Your task to perform on an android device: What's on my calendar today? Image 0: 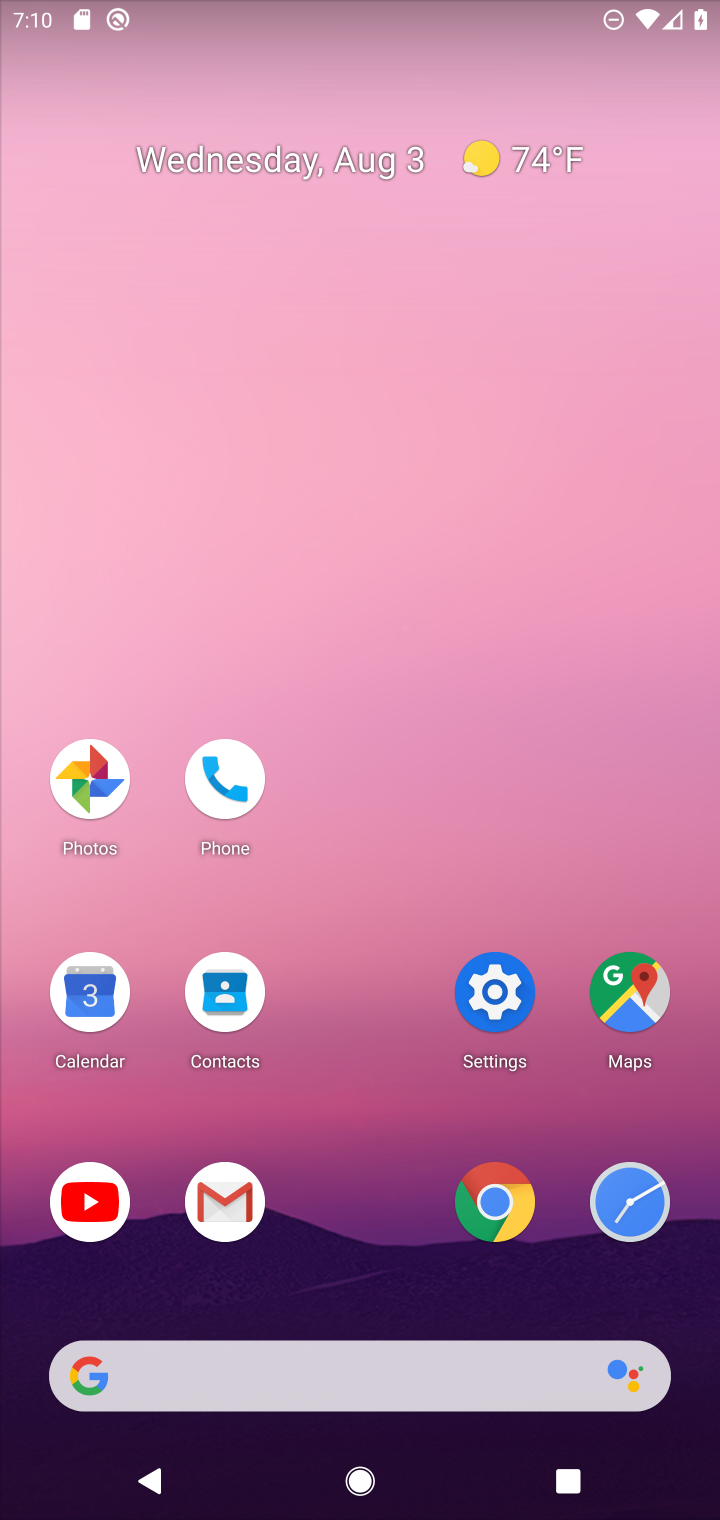
Step 0: click (88, 993)
Your task to perform on an android device: What's on my calendar today? Image 1: 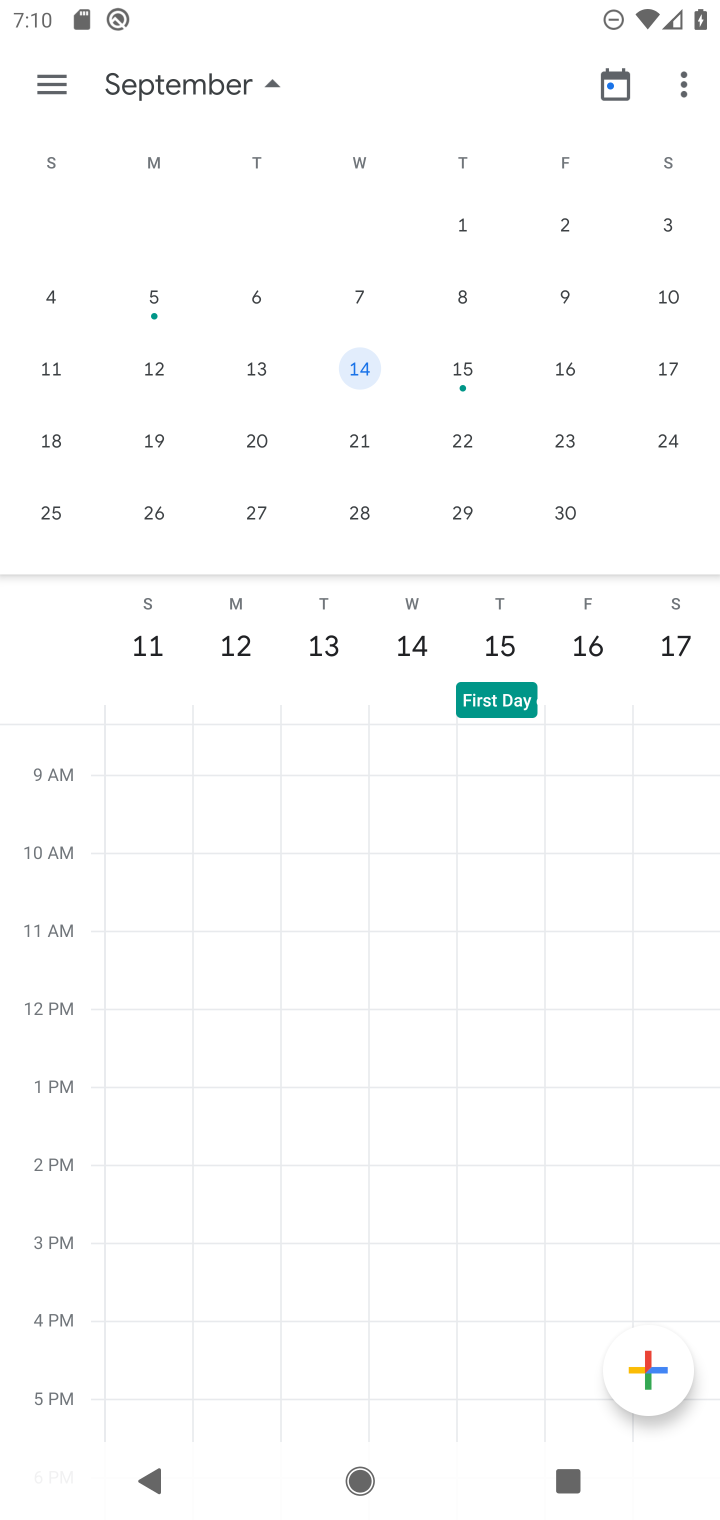
Step 1: drag from (80, 366) to (696, 418)
Your task to perform on an android device: What's on my calendar today? Image 2: 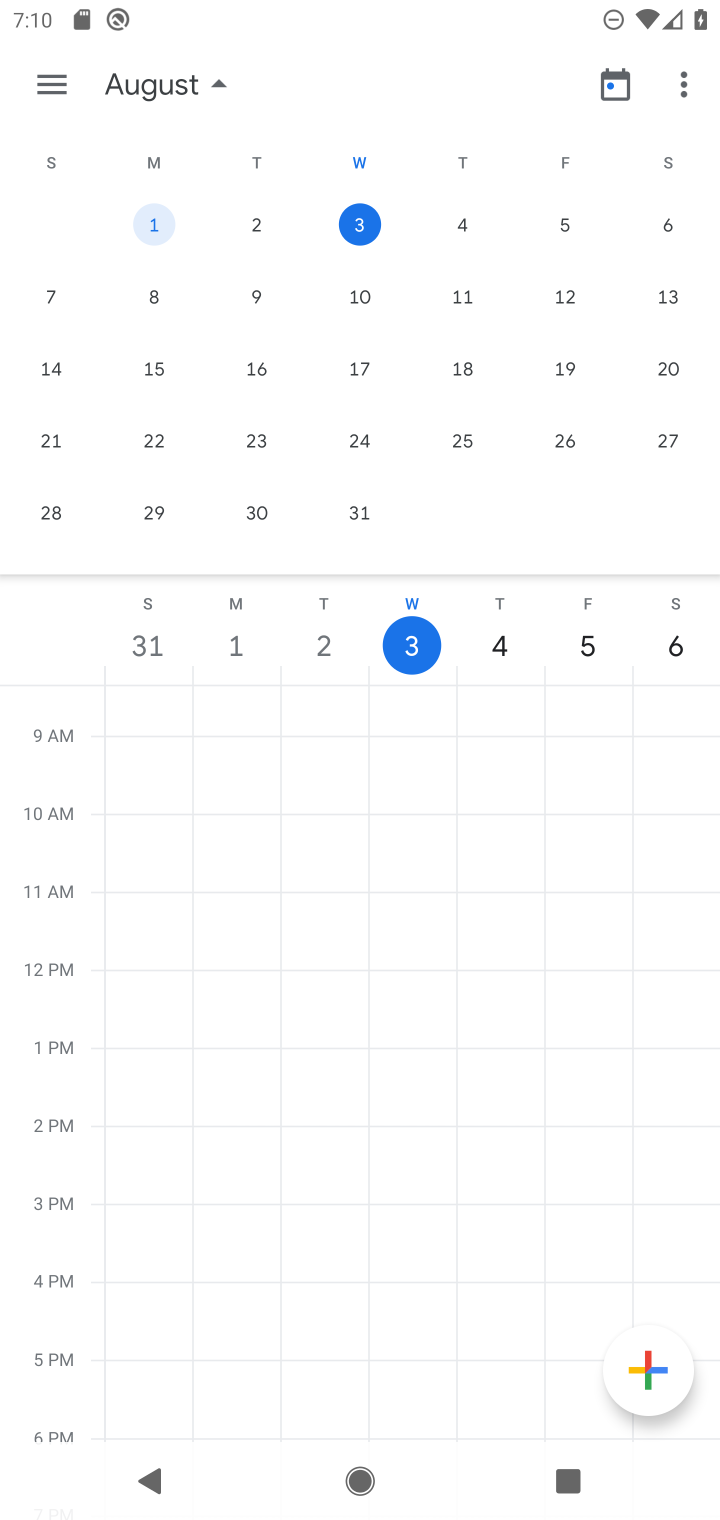
Step 2: click (363, 221)
Your task to perform on an android device: What's on my calendar today? Image 3: 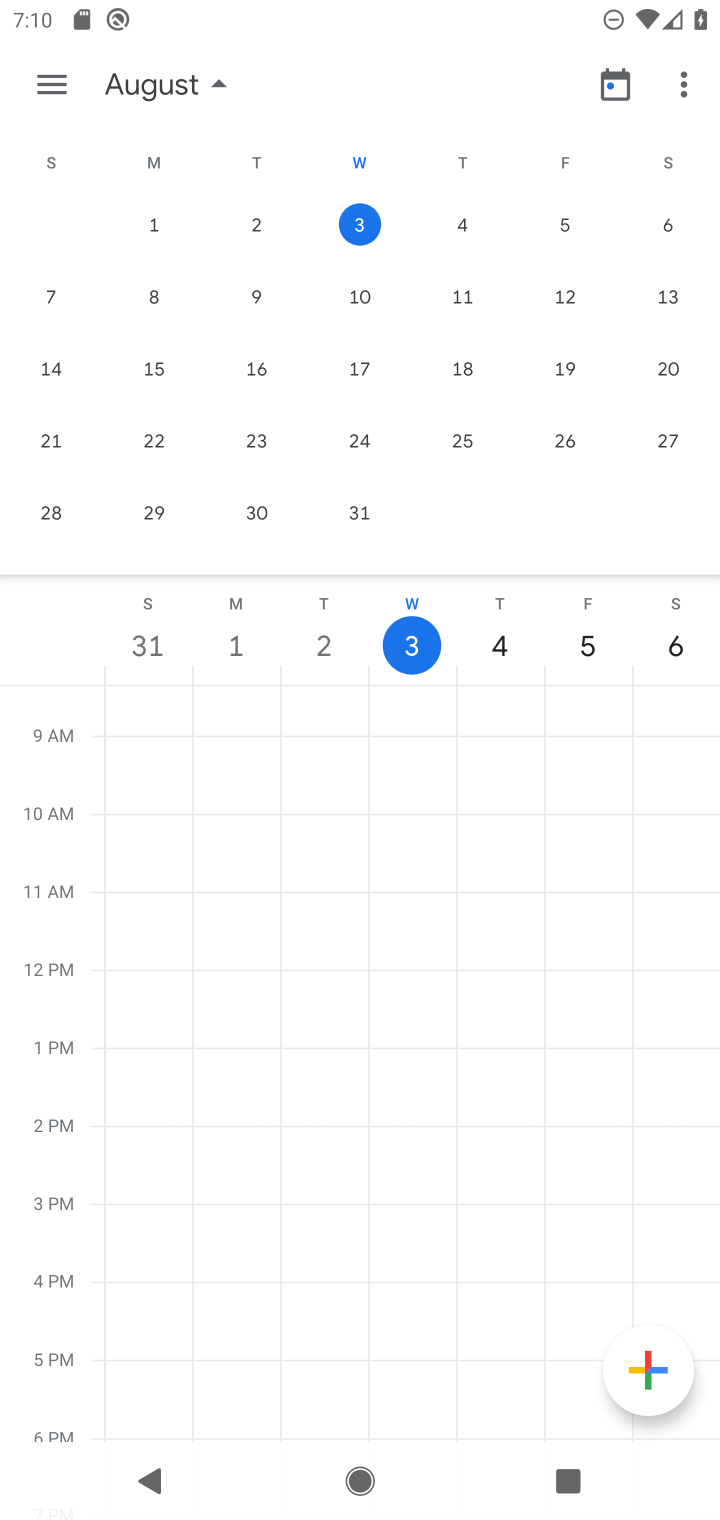
Step 3: click (407, 634)
Your task to perform on an android device: What's on my calendar today? Image 4: 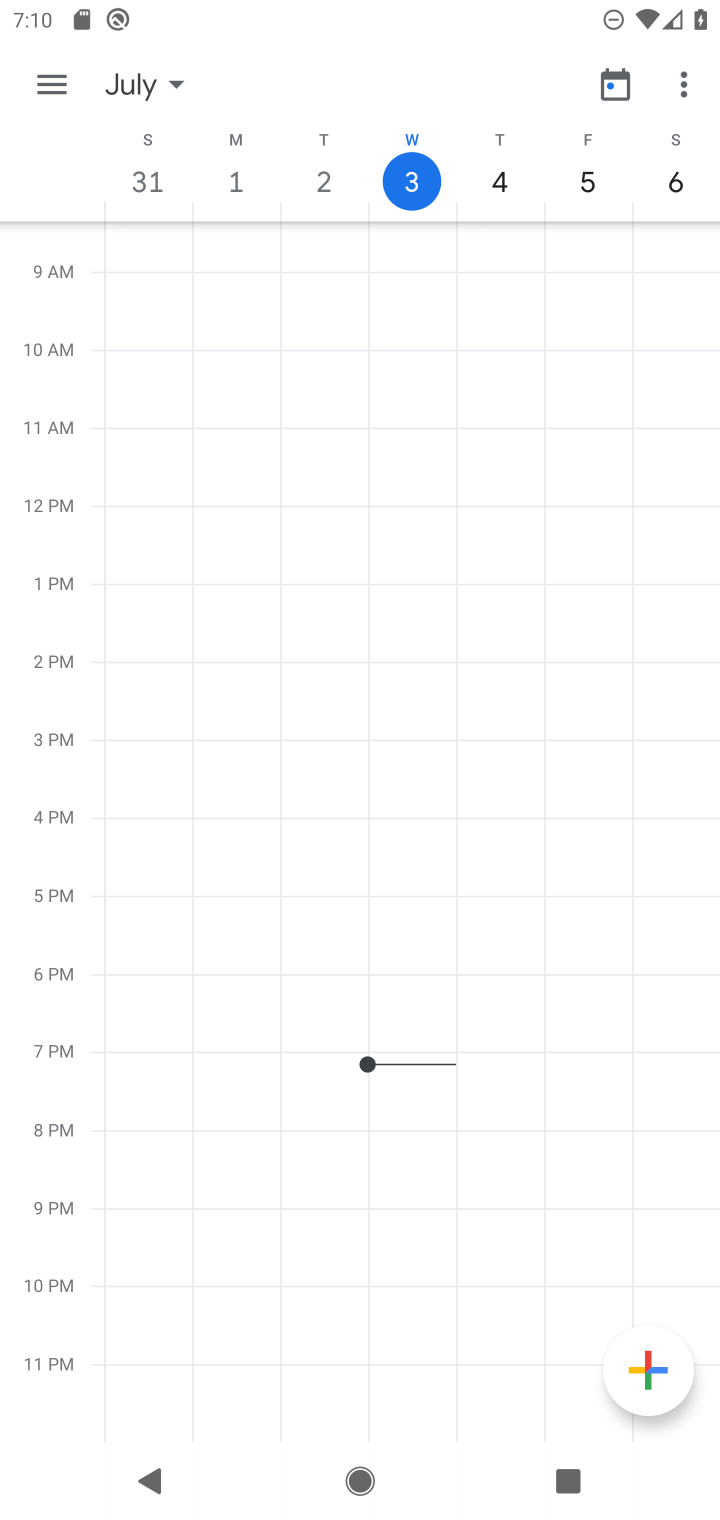
Step 4: click (411, 166)
Your task to perform on an android device: What's on my calendar today? Image 5: 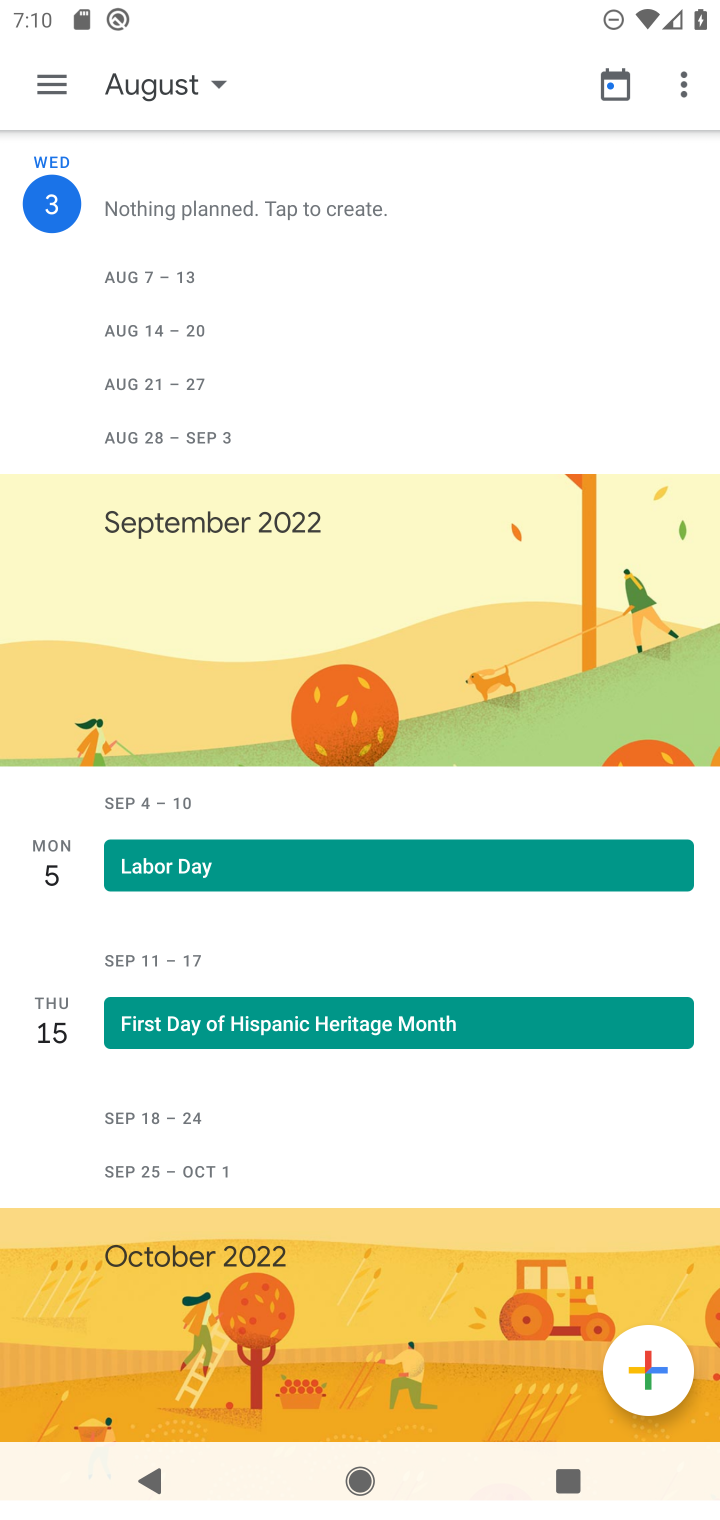
Step 5: click (48, 193)
Your task to perform on an android device: What's on my calendar today? Image 6: 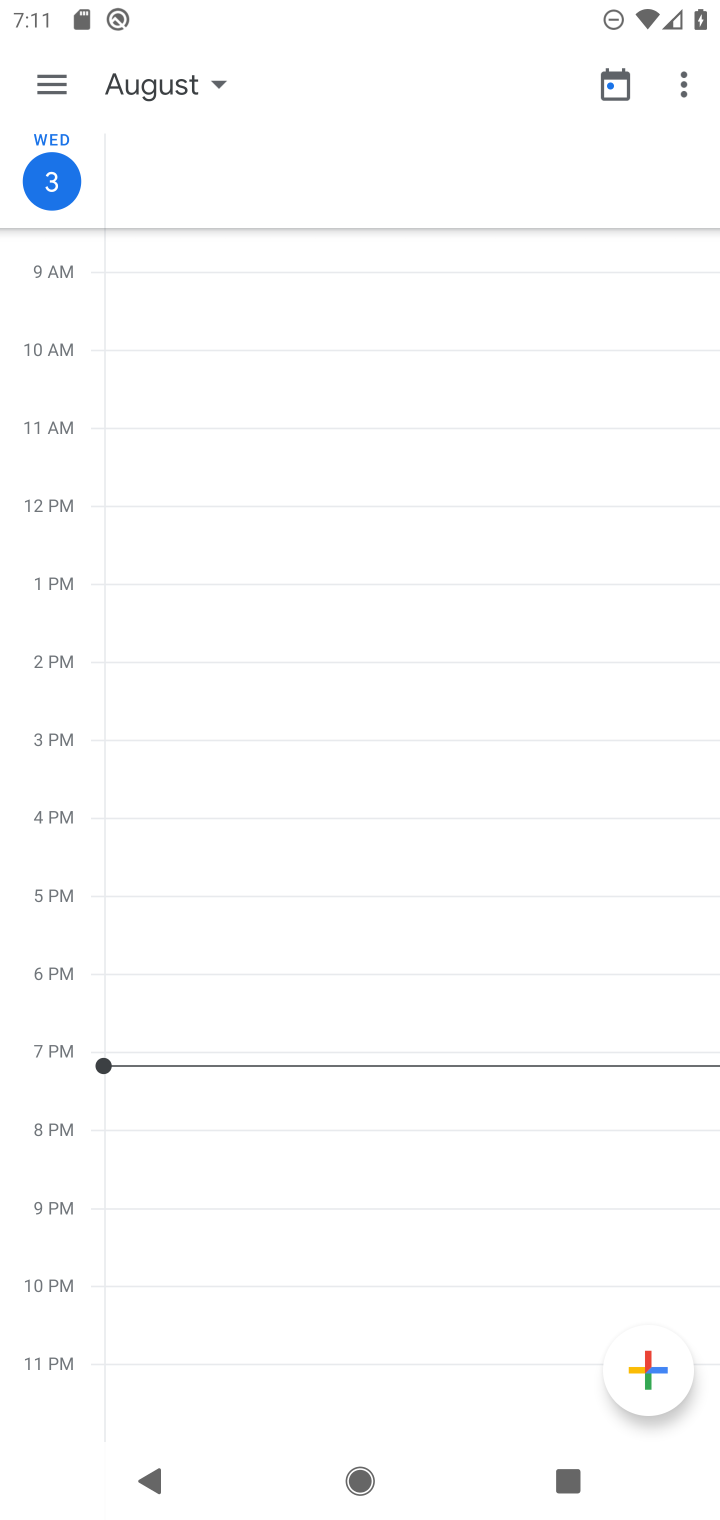
Step 6: task complete